Your task to perform on an android device: Go to battery settings Image 0: 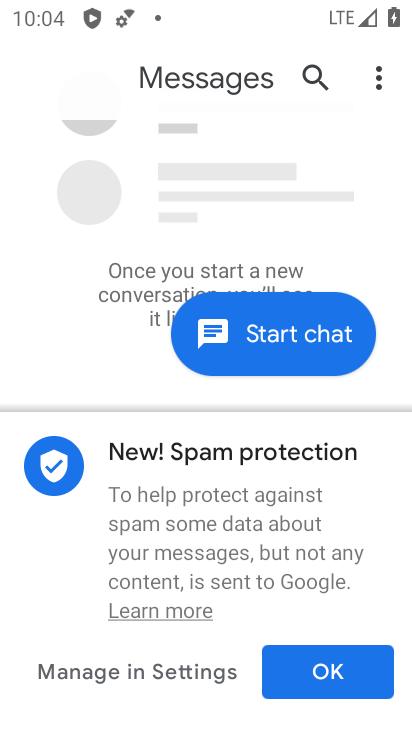
Step 0: press home button
Your task to perform on an android device: Go to battery settings Image 1: 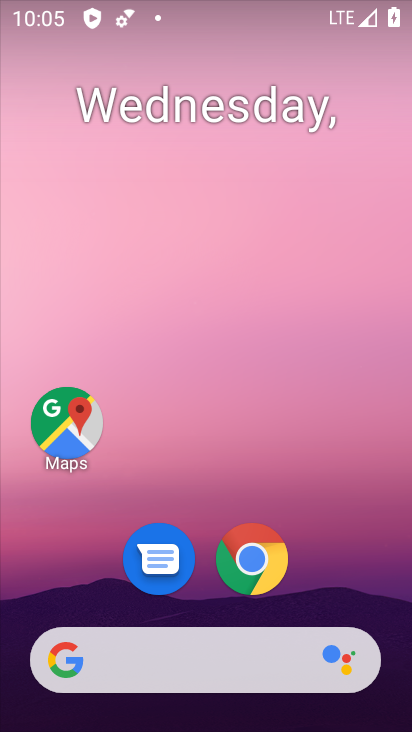
Step 1: drag from (348, 610) to (339, 64)
Your task to perform on an android device: Go to battery settings Image 2: 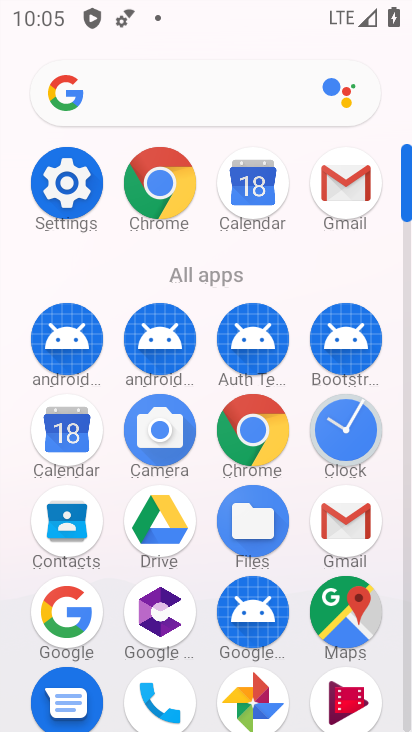
Step 2: click (82, 190)
Your task to perform on an android device: Go to battery settings Image 3: 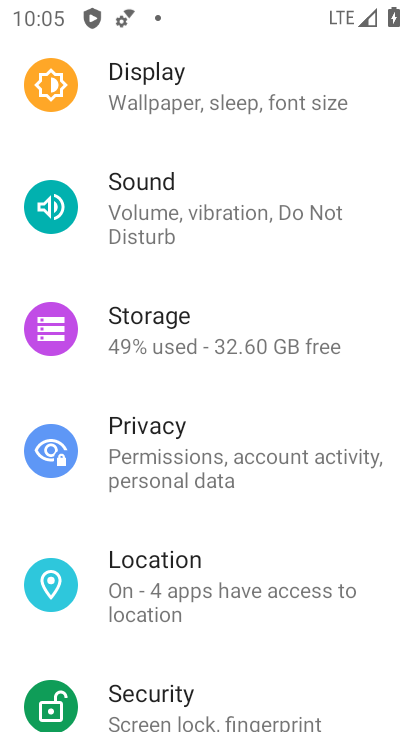
Step 3: drag from (224, 205) to (288, 690)
Your task to perform on an android device: Go to battery settings Image 4: 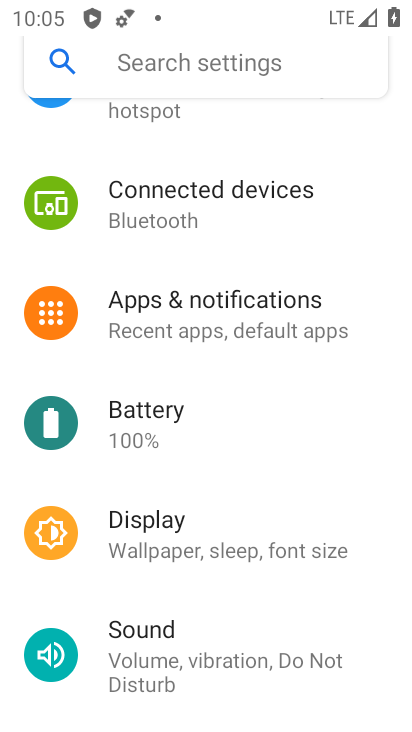
Step 4: drag from (222, 228) to (286, 723)
Your task to perform on an android device: Go to battery settings Image 5: 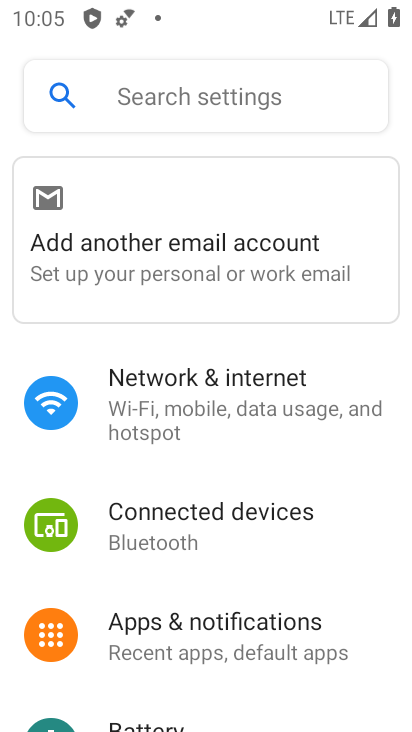
Step 5: drag from (251, 634) to (217, 216)
Your task to perform on an android device: Go to battery settings Image 6: 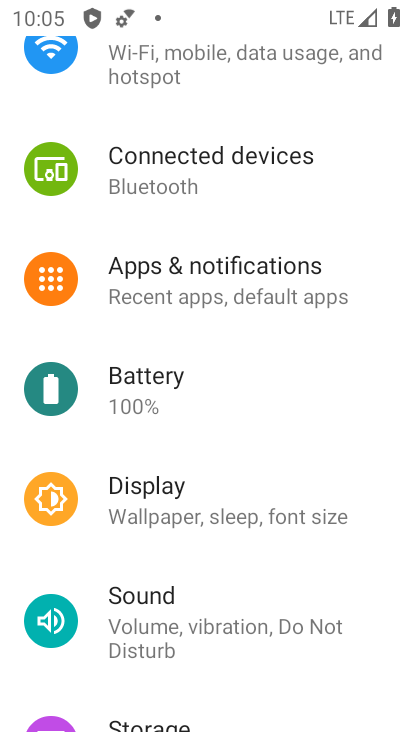
Step 6: click (166, 392)
Your task to perform on an android device: Go to battery settings Image 7: 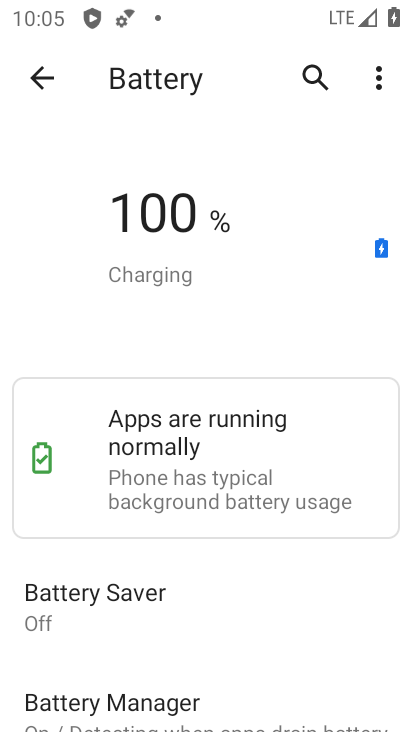
Step 7: task complete